Your task to perform on an android device: Do I have any events this weekend? Image 0: 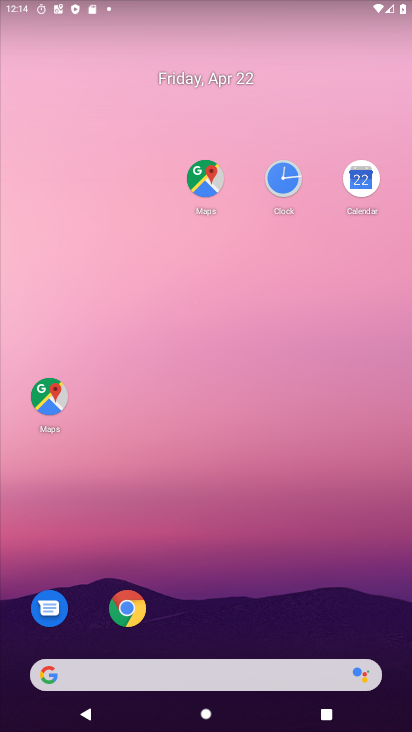
Step 0: drag from (261, 714) to (212, 109)
Your task to perform on an android device: Do I have any events this weekend? Image 1: 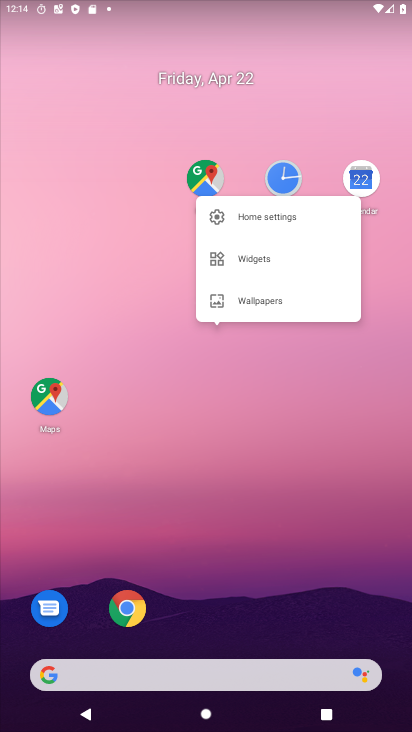
Step 1: drag from (207, 556) to (37, 5)
Your task to perform on an android device: Do I have any events this weekend? Image 2: 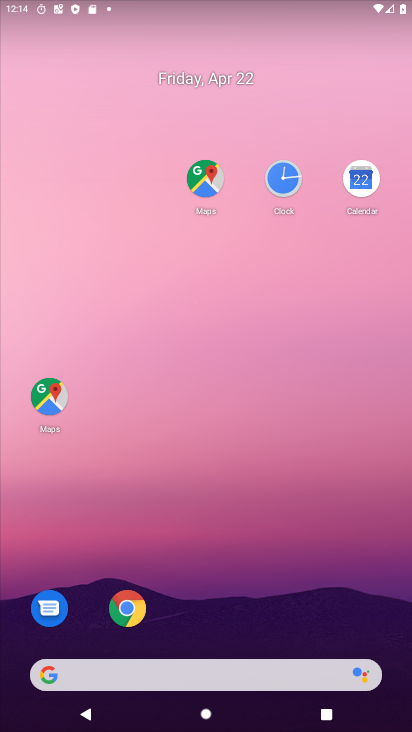
Step 2: drag from (193, 512) to (66, 1)
Your task to perform on an android device: Do I have any events this weekend? Image 3: 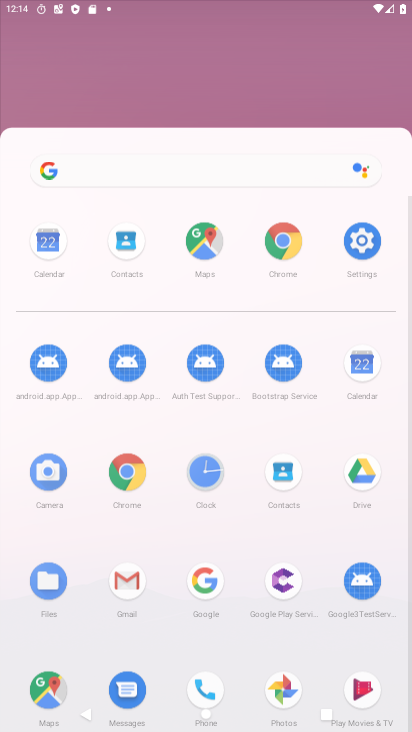
Step 3: drag from (213, 465) to (96, 40)
Your task to perform on an android device: Do I have any events this weekend? Image 4: 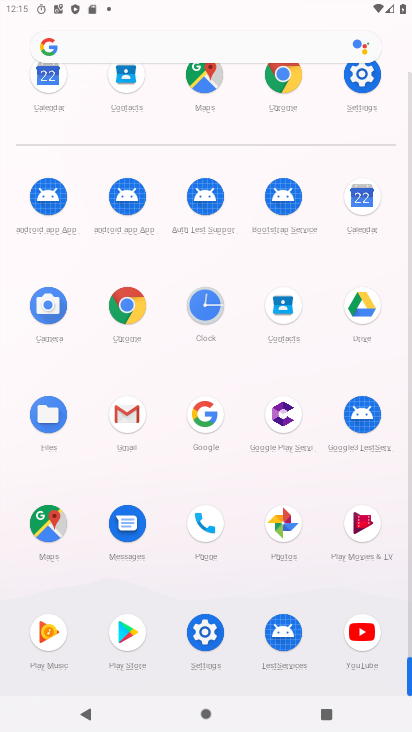
Step 4: drag from (231, 316) to (278, 591)
Your task to perform on an android device: Do I have any events this weekend? Image 5: 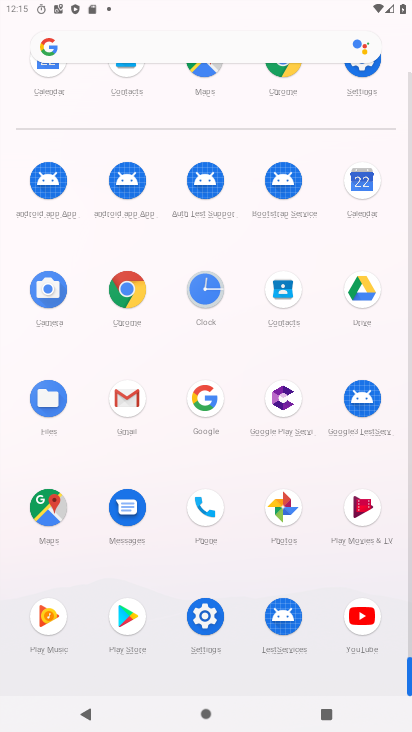
Step 5: click (244, 498)
Your task to perform on an android device: Do I have any events this weekend? Image 6: 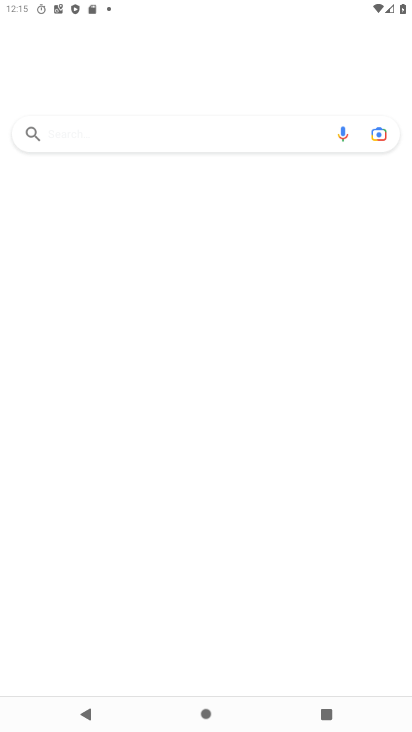
Step 6: click (284, 288)
Your task to perform on an android device: Do I have any events this weekend? Image 7: 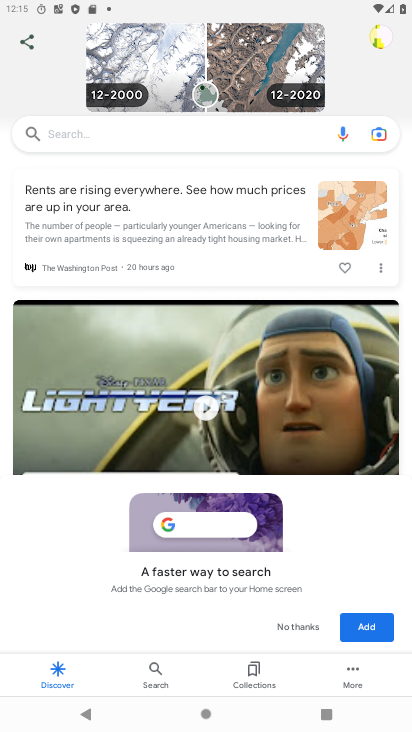
Step 7: press home button
Your task to perform on an android device: Do I have any events this weekend? Image 8: 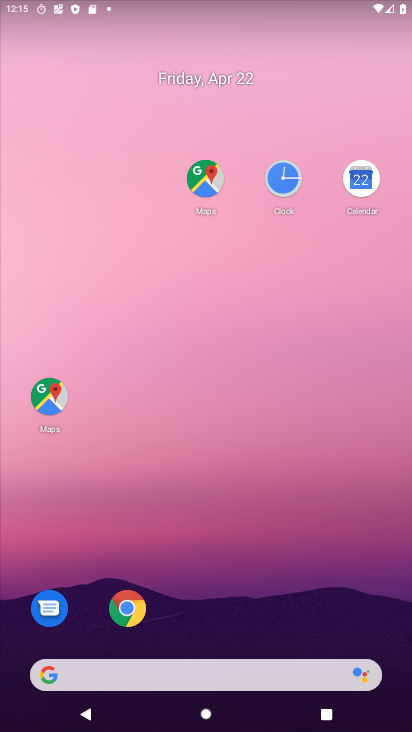
Step 8: drag from (254, 541) to (143, 19)
Your task to perform on an android device: Do I have any events this weekend? Image 9: 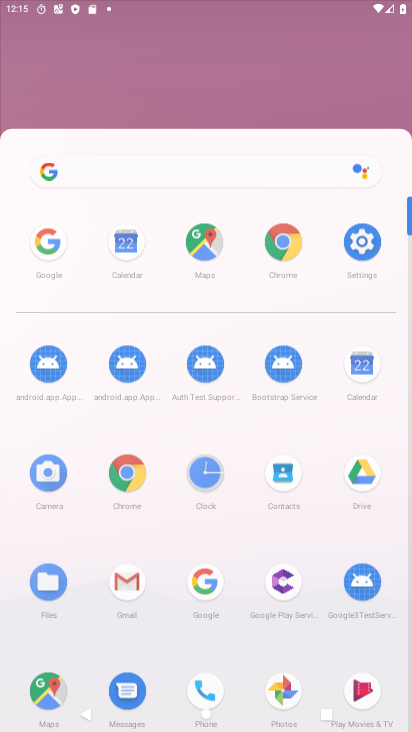
Step 9: drag from (294, 525) to (109, 106)
Your task to perform on an android device: Do I have any events this weekend? Image 10: 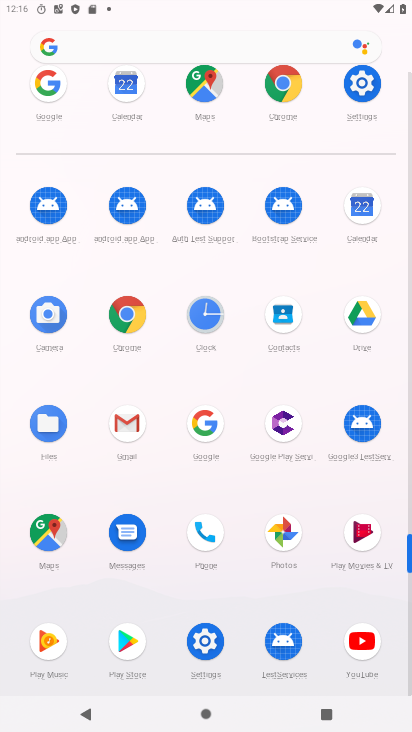
Step 10: click (360, 209)
Your task to perform on an android device: Do I have any events this weekend? Image 11: 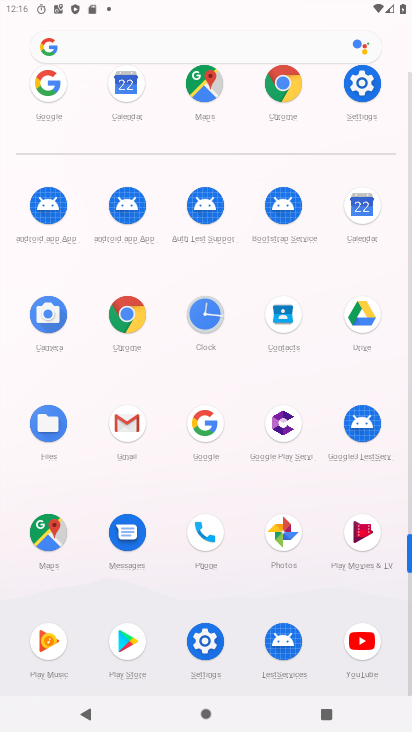
Step 11: click (360, 209)
Your task to perform on an android device: Do I have any events this weekend? Image 12: 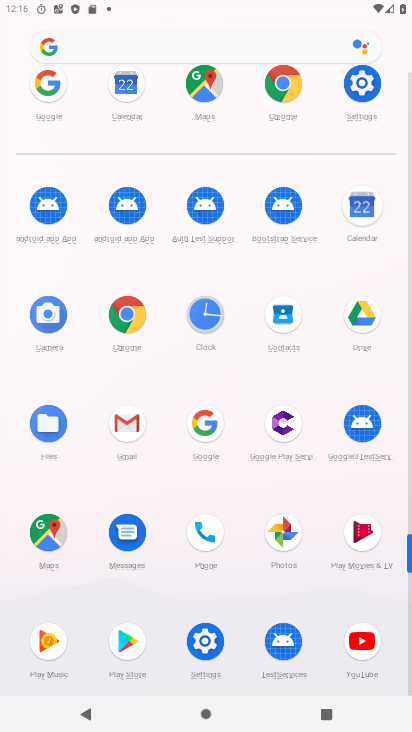
Step 12: click (360, 209)
Your task to perform on an android device: Do I have any events this weekend? Image 13: 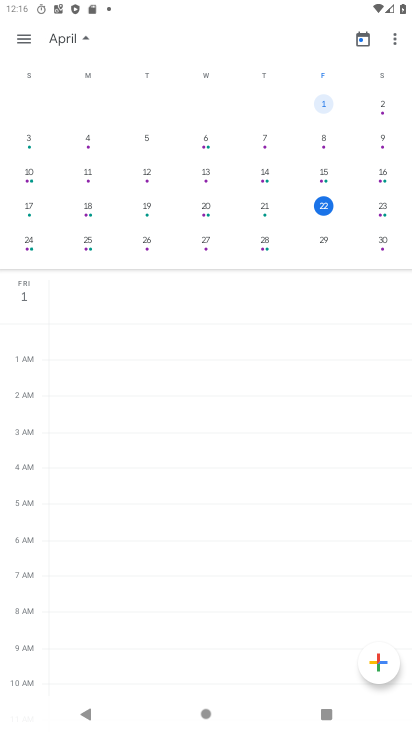
Step 13: click (25, 38)
Your task to perform on an android device: Do I have any events this weekend? Image 14: 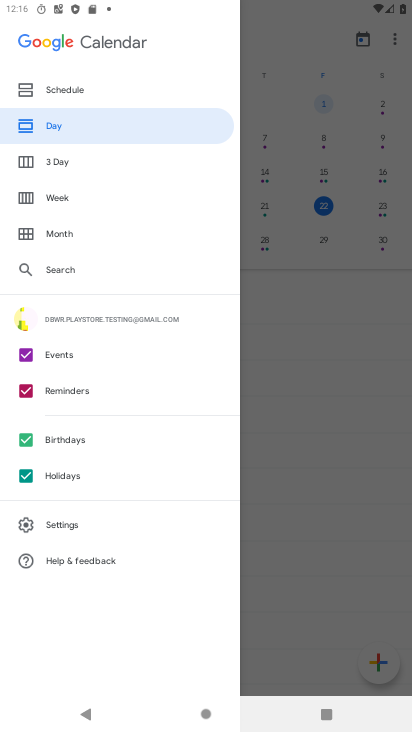
Step 14: click (60, 478)
Your task to perform on an android device: Do I have any events this weekend? Image 15: 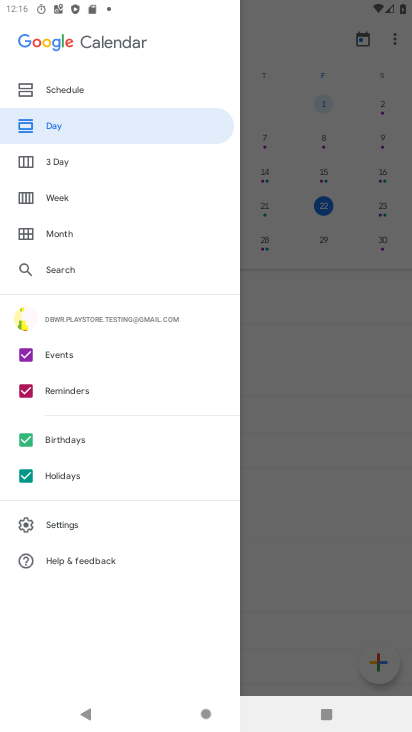
Step 15: click (65, 477)
Your task to perform on an android device: Do I have any events this weekend? Image 16: 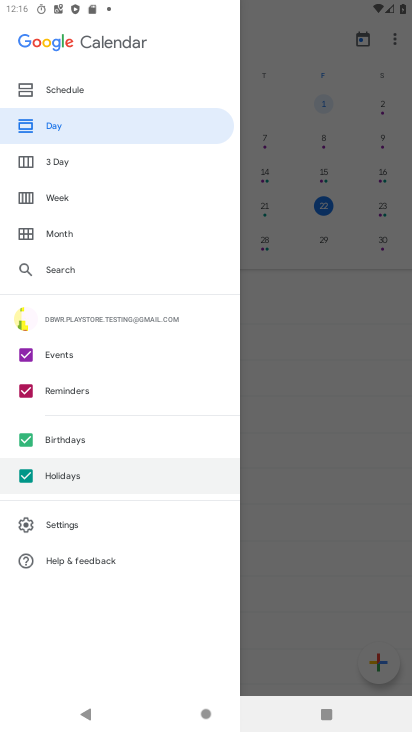
Step 16: click (62, 474)
Your task to perform on an android device: Do I have any events this weekend? Image 17: 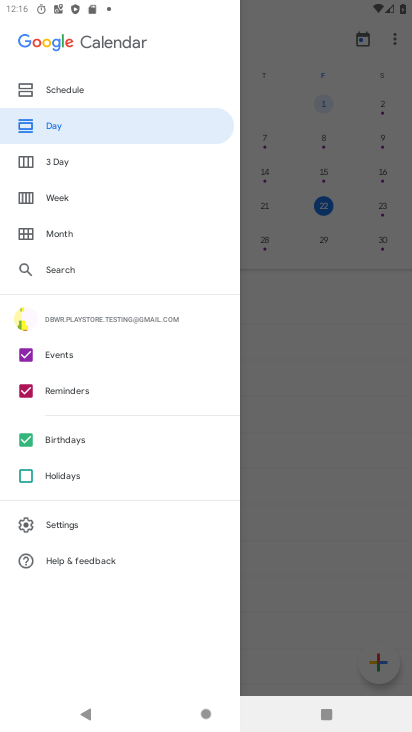
Step 17: click (62, 474)
Your task to perform on an android device: Do I have any events this weekend? Image 18: 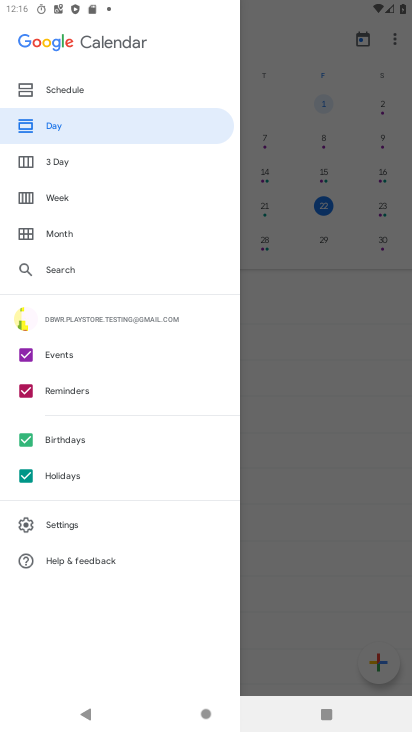
Step 18: click (40, 359)
Your task to perform on an android device: Do I have any events this weekend? Image 19: 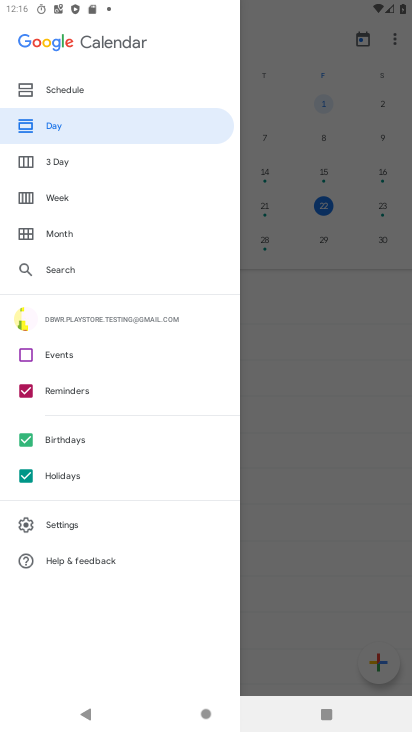
Step 19: click (40, 357)
Your task to perform on an android device: Do I have any events this weekend? Image 20: 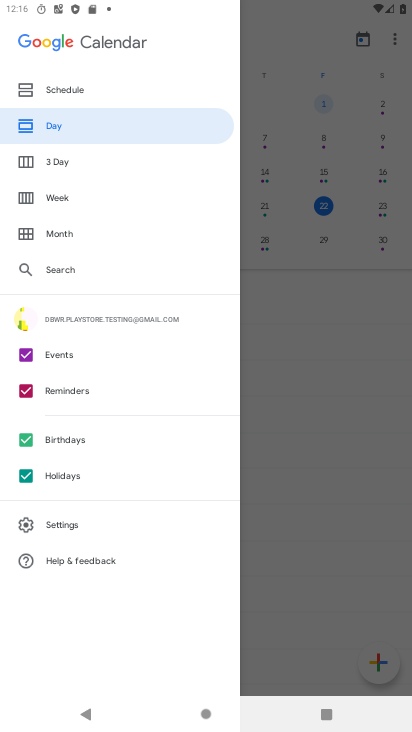
Step 20: task complete